Your task to perform on an android device: allow cookies in the chrome app Image 0: 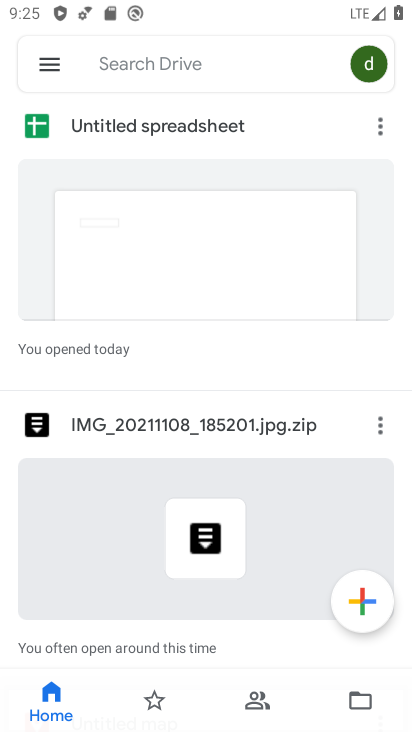
Step 0: press home button
Your task to perform on an android device: allow cookies in the chrome app Image 1: 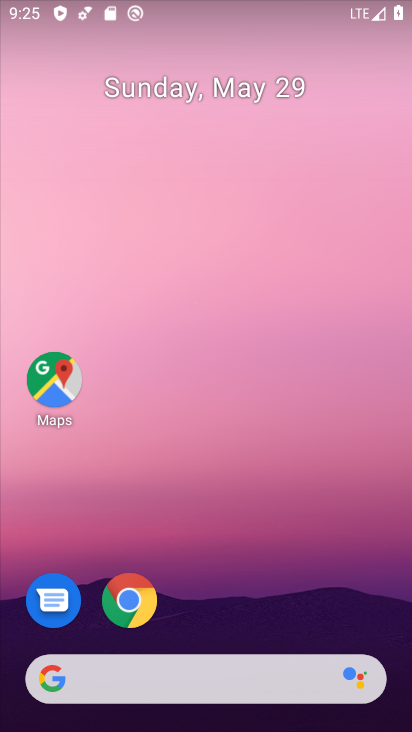
Step 1: click (131, 592)
Your task to perform on an android device: allow cookies in the chrome app Image 2: 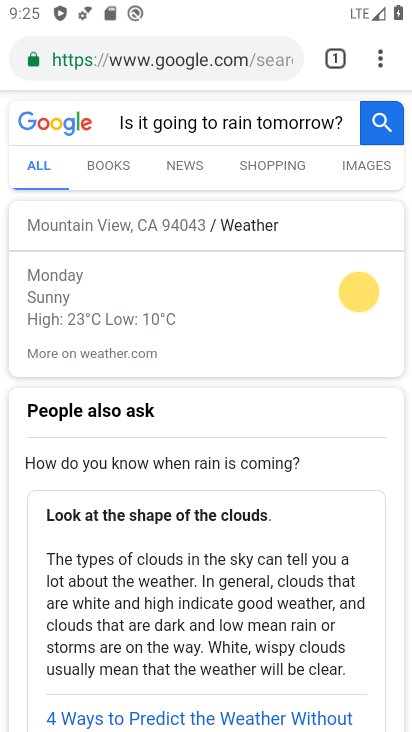
Step 2: drag from (384, 53) to (205, 630)
Your task to perform on an android device: allow cookies in the chrome app Image 3: 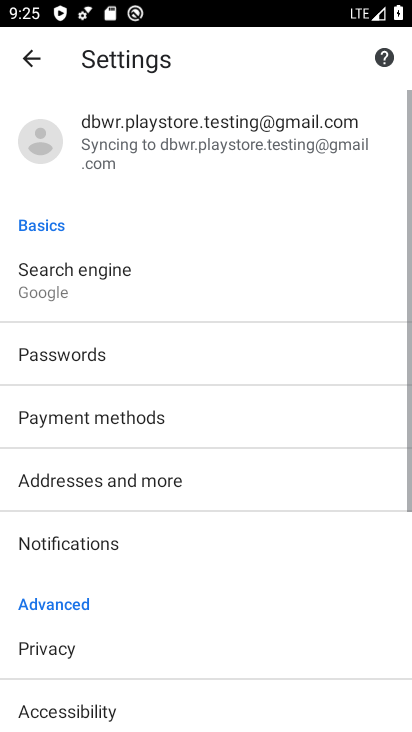
Step 3: drag from (180, 678) to (287, 351)
Your task to perform on an android device: allow cookies in the chrome app Image 4: 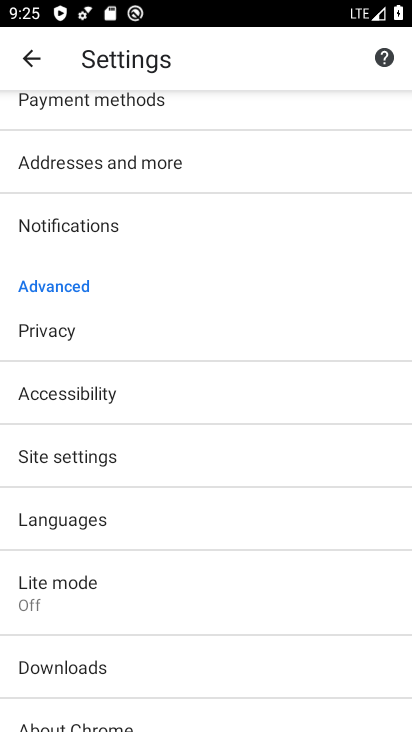
Step 4: click (59, 463)
Your task to perform on an android device: allow cookies in the chrome app Image 5: 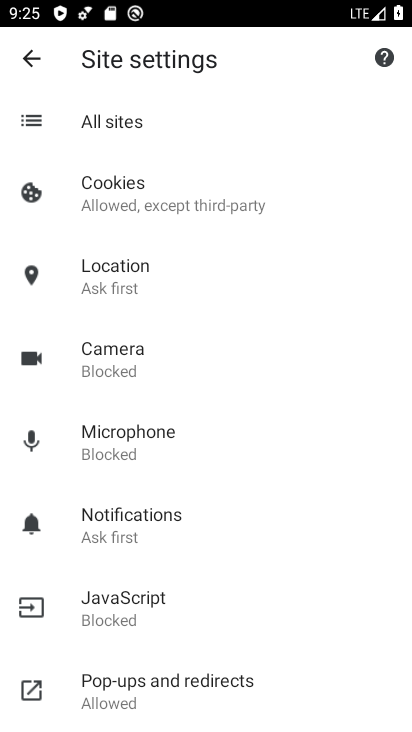
Step 5: click (95, 198)
Your task to perform on an android device: allow cookies in the chrome app Image 6: 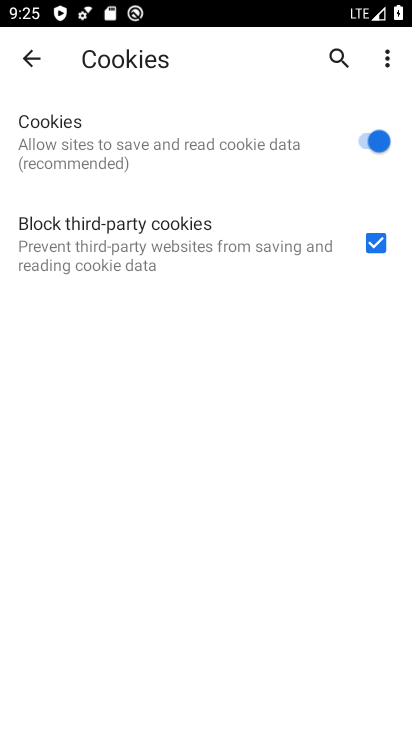
Step 6: task complete